Your task to perform on an android device: install app "Speedtest by Ookla" Image 0: 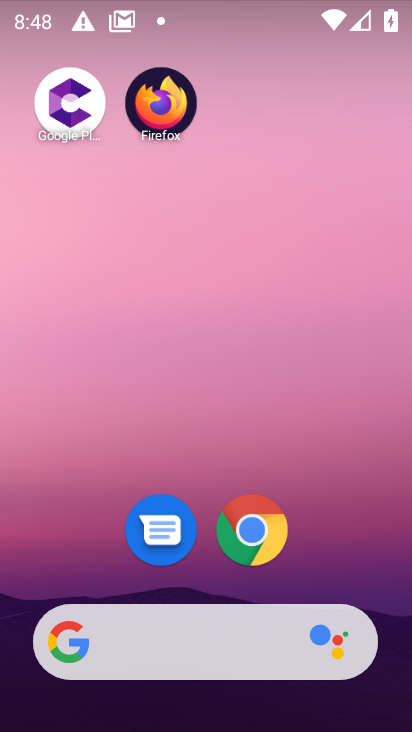
Step 0: drag from (385, 574) to (247, 54)
Your task to perform on an android device: install app "Speedtest by Ookla" Image 1: 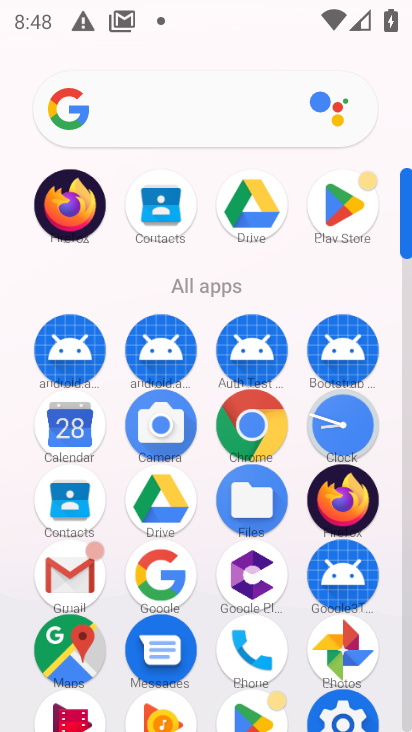
Step 1: click (349, 224)
Your task to perform on an android device: install app "Speedtest by Ookla" Image 2: 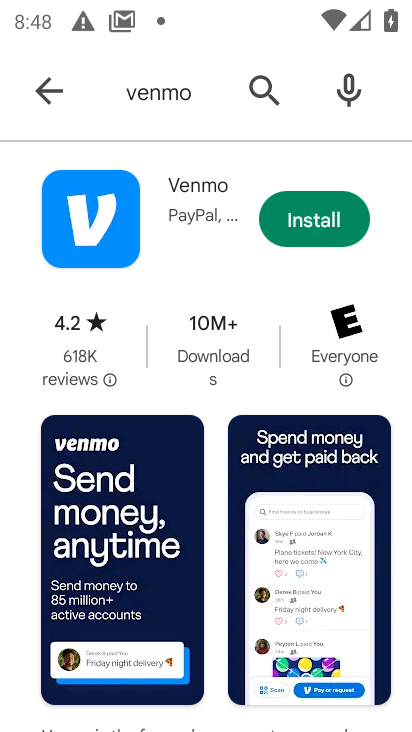
Step 2: click (268, 81)
Your task to perform on an android device: install app "Speedtest by Ookla" Image 3: 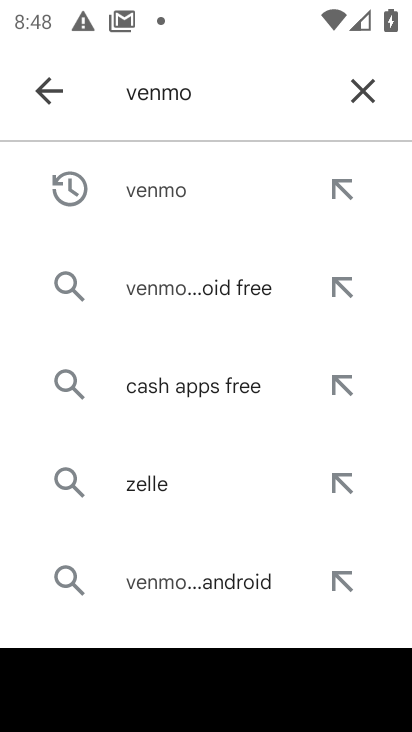
Step 3: click (361, 92)
Your task to perform on an android device: install app "Speedtest by Ookla" Image 4: 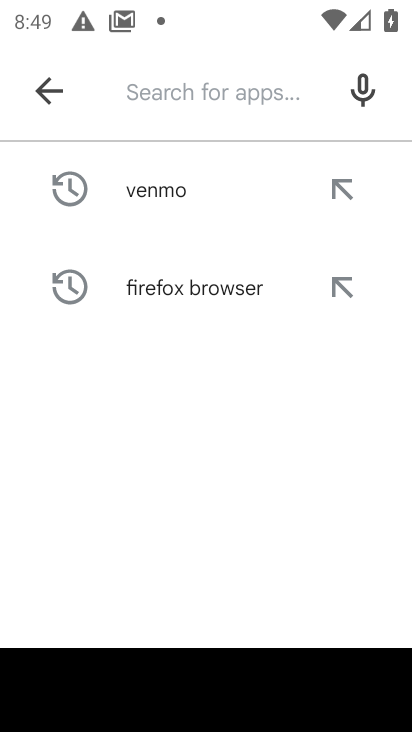
Step 4: type "Speedtest by Ookla"
Your task to perform on an android device: install app "Speedtest by Ookla" Image 5: 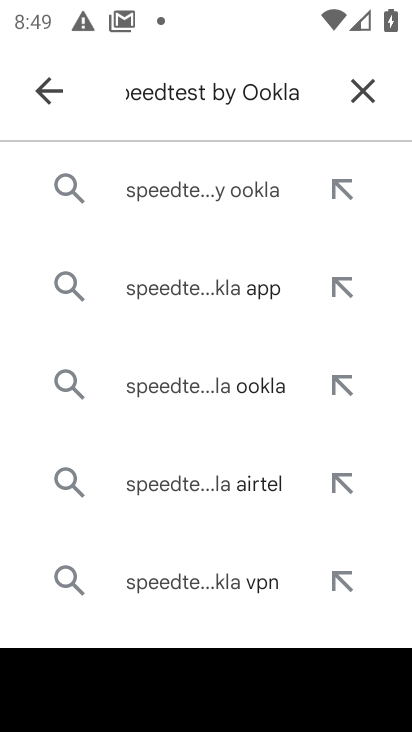
Step 5: click (267, 197)
Your task to perform on an android device: install app "Speedtest by Ookla" Image 6: 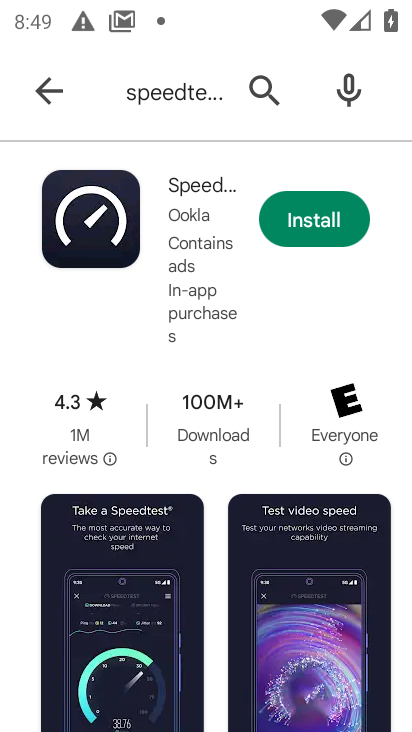
Step 6: click (332, 241)
Your task to perform on an android device: install app "Speedtest by Ookla" Image 7: 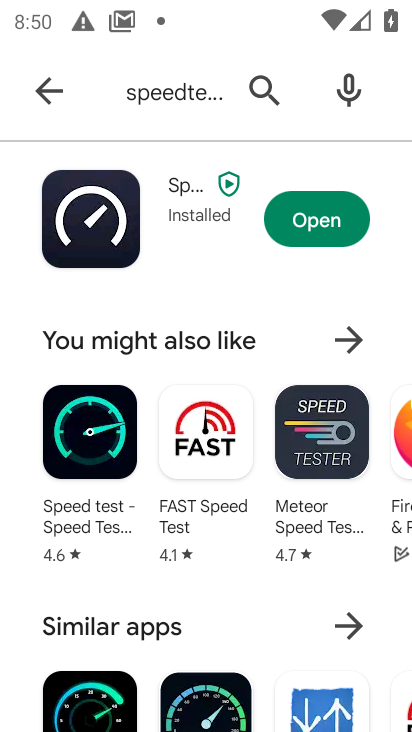
Step 7: task complete